Your task to perform on an android device: remove spam from my inbox in the gmail app Image 0: 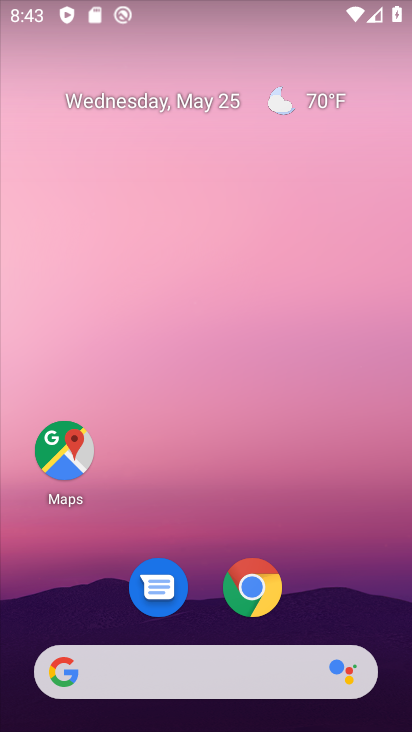
Step 0: drag from (200, 616) to (198, 43)
Your task to perform on an android device: remove spam from my inbox in the gmail app Image 1: 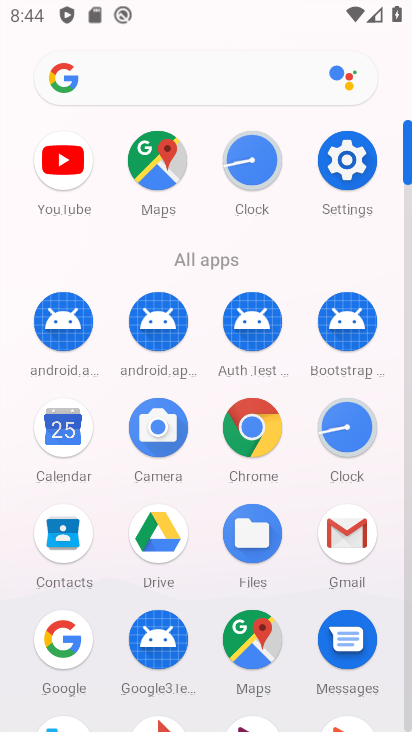
Step 1: click (347, 557)
Your task to perform on an android device: remove spam from my inbox in the gmail app Image 2: 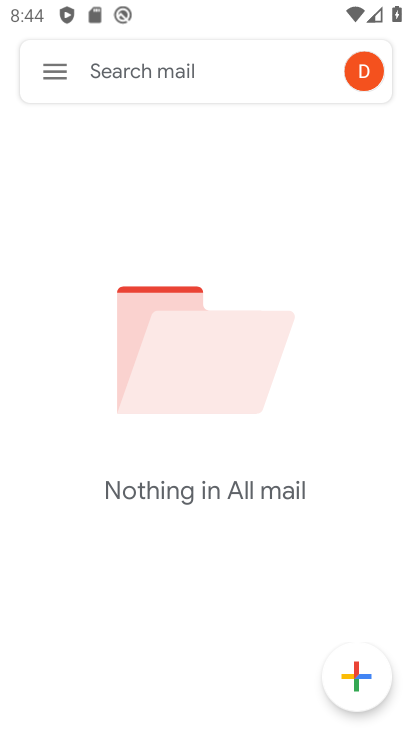
Step 2: click (63, 71)
Your task to perform on an android device: remove spam from my inbox in the gmail app Image 3: 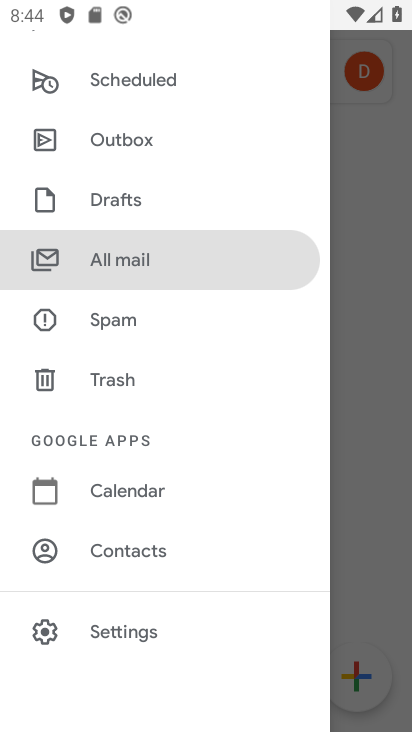
Step 3: click (120, 328)
Your task to perform on an android device: remove spam from my inbox in the gmail app Image 4: 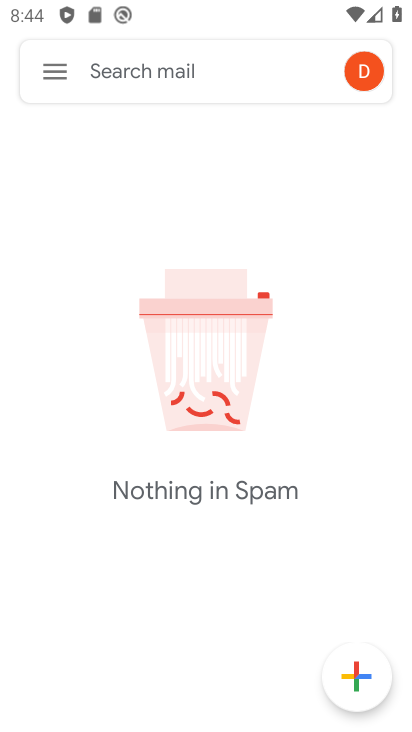
Step 4: task complete